Your task to perform on an android device: turn on the 12-hour format for clock Image 0: 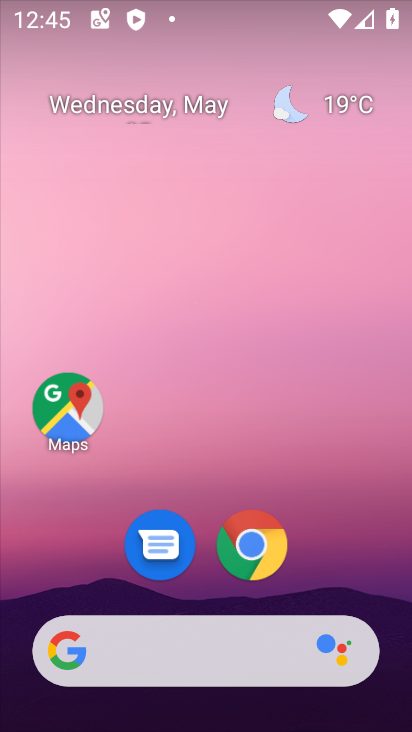
Step 0: drag from (204, 593) to (217, 39)
Your task to perform on an android device: turn on the 12-hour format for clock Image 1: 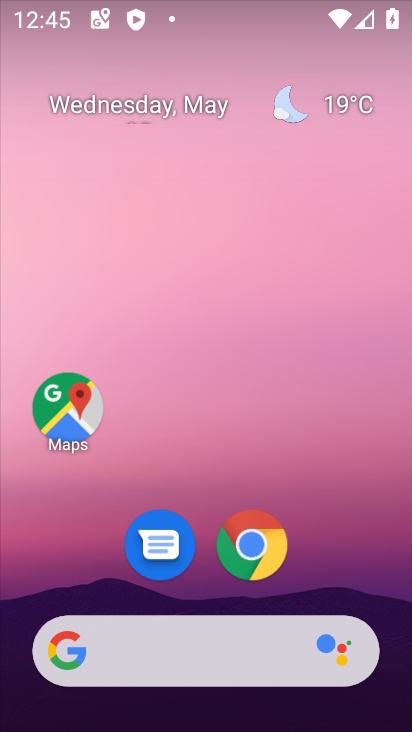
Step 1: drag from (204, 594) to (254, 37)
Your task to perform on an android device: turn on the 12-hour format for clock Image 2: 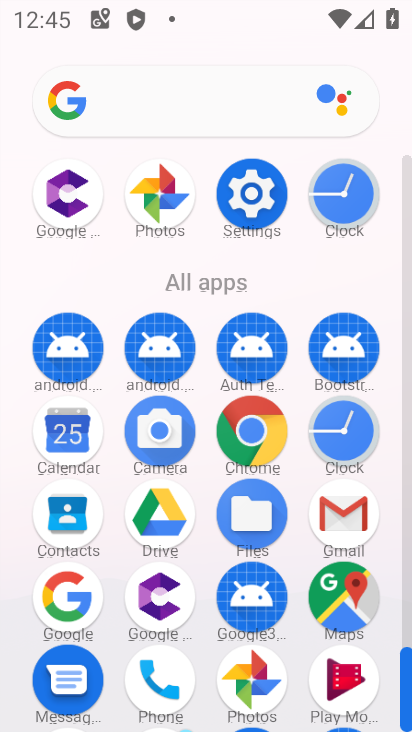
Step 2: click (347, 195)
Your task to perform on an android device: turn on the 12-hour format for clock Image 3: 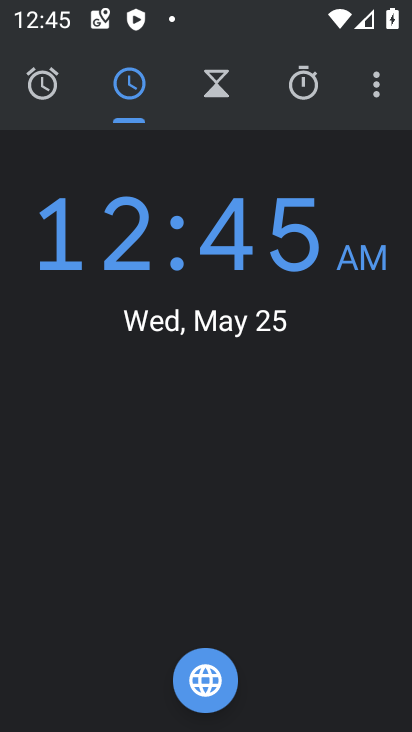
Step 3: click (391, 93)
Your task to perform on an android device: turn on the 12-hour format for clock Image 4: 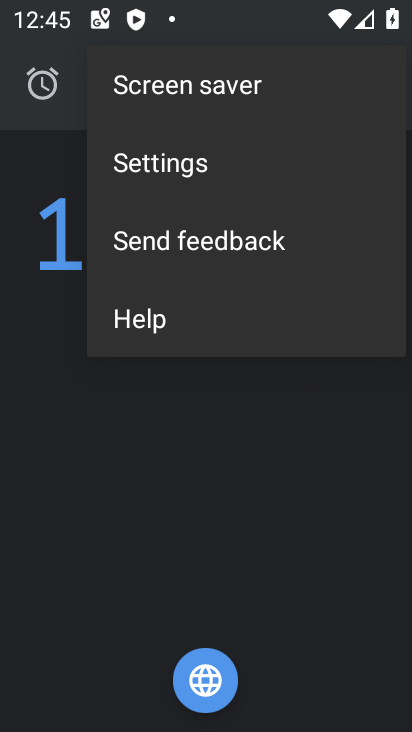
Step 4: click (197, 169)
Your task to perform on an android device: turn on the 12-hour format for clock Image 5: 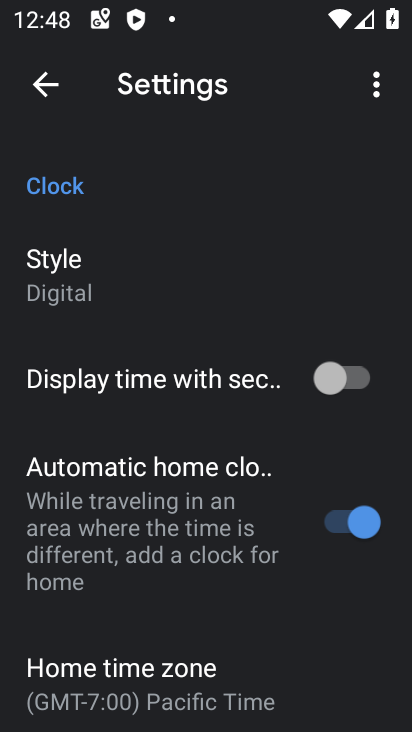
Step 5: task complete